Your task to perform on an android device: Add "asus rog" to the cart on amazon Image 0: 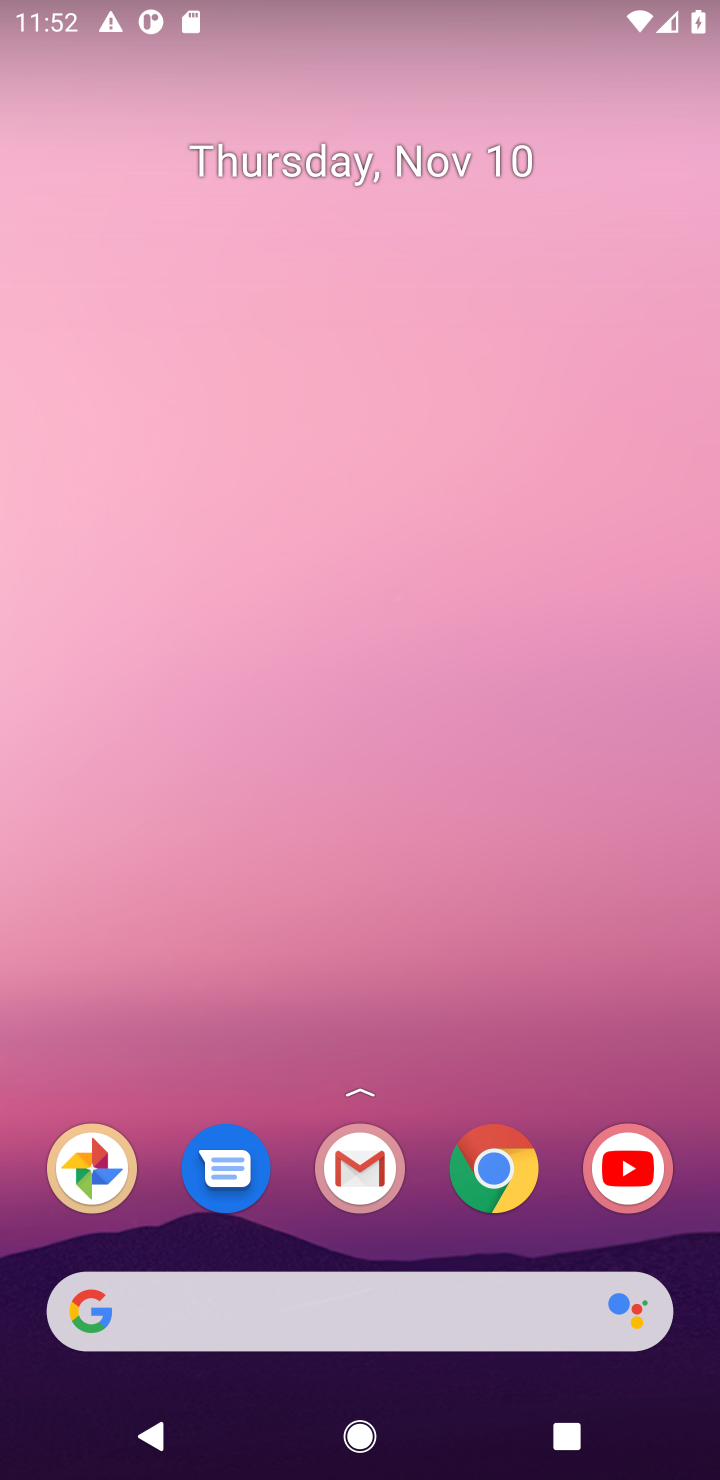
Step 0: click (489, 1165)
Your task to perform on an android device: Add "asus rog" to the cart on amazon Image 1: 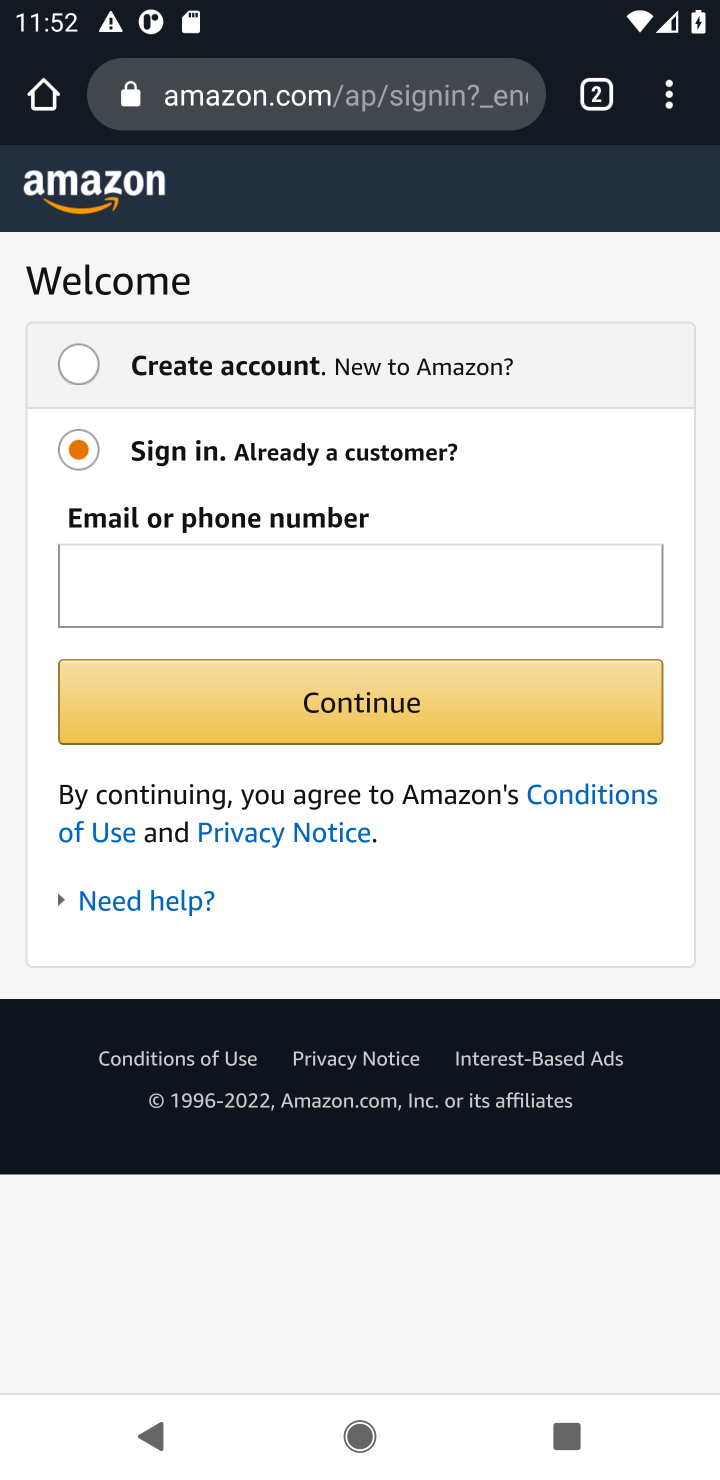
Step 1: press back button
Your task to perform on an android device: Add "asus rog" to the cart on amazon Image 2: 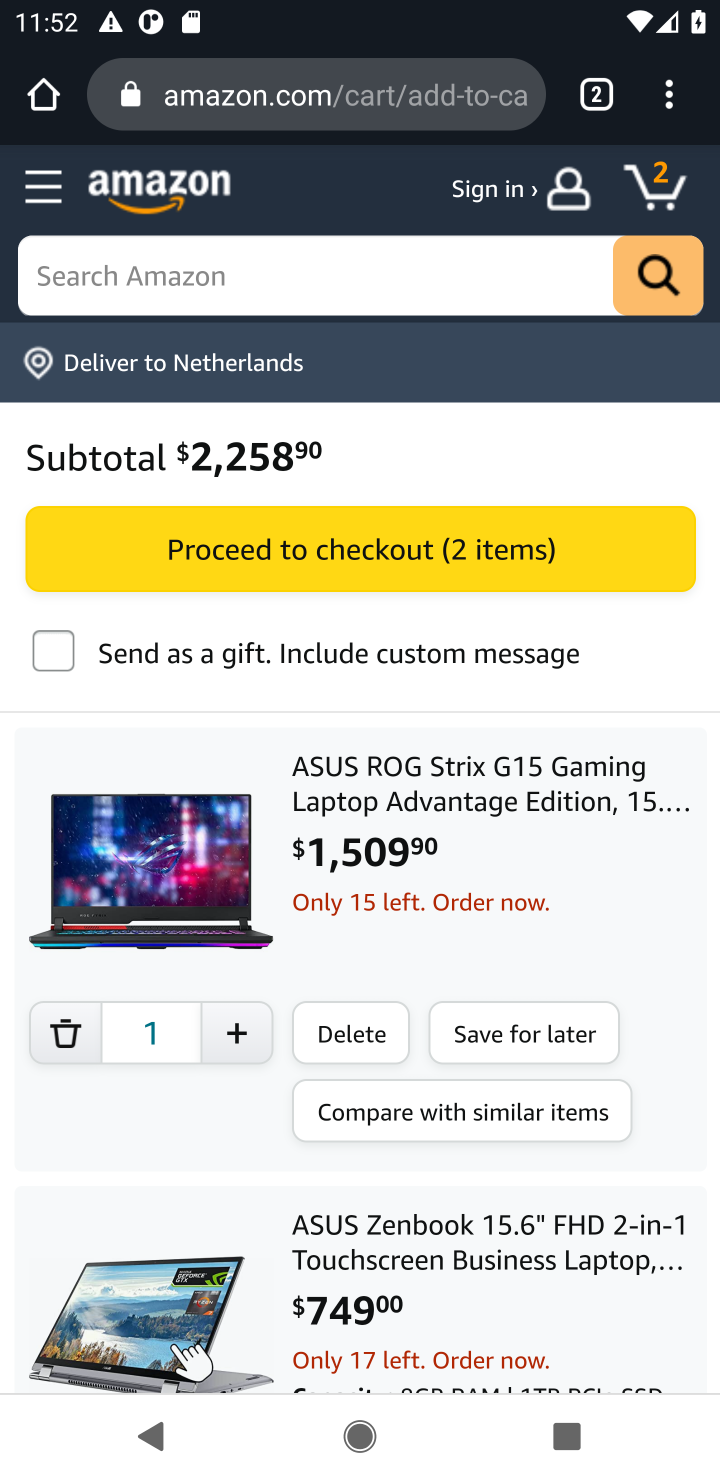
Step 2: click (298, 256)
Your task to perform on an android device: Add "asus rog" to the cart on amazon Image 3: 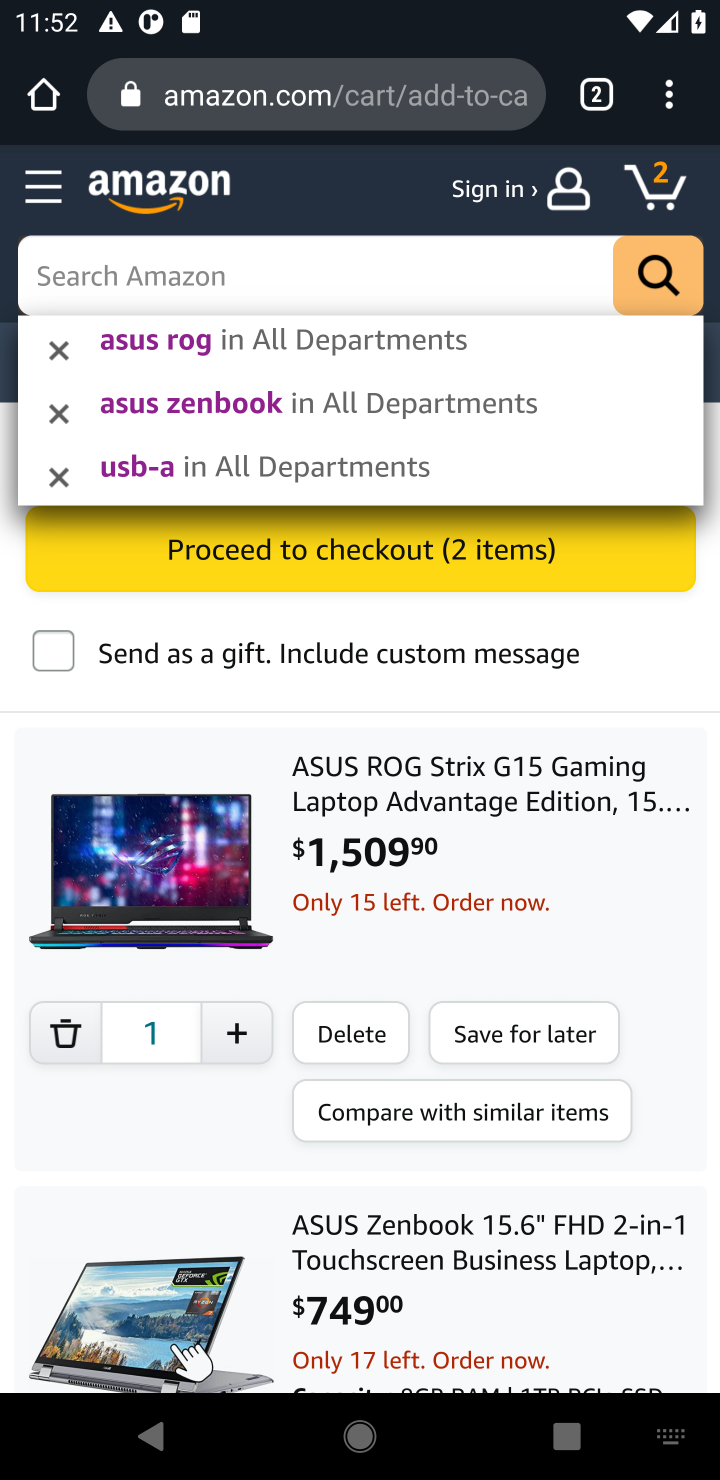
Step 3: type "asus rog"
Your task to perform on an android device: Add "asus rog" to the cart on amazon Image 4: 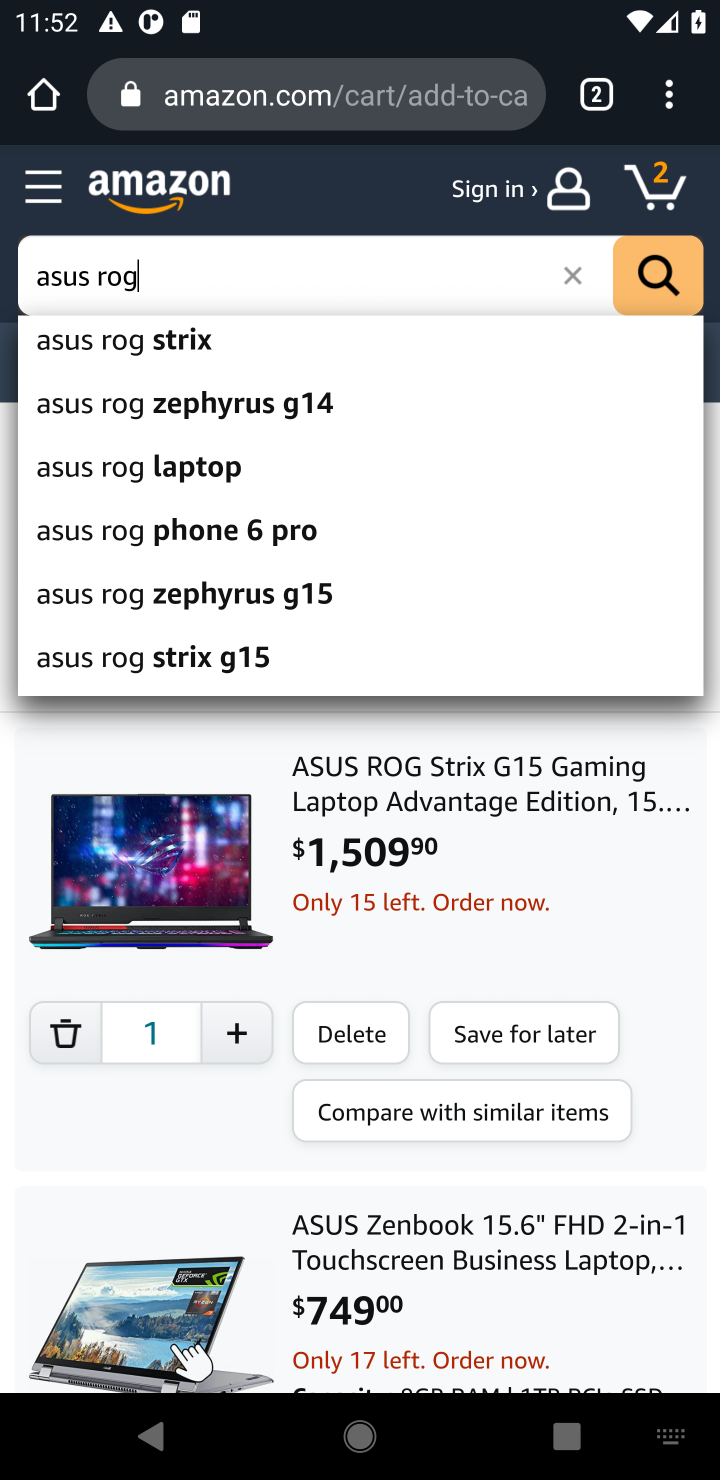
Step 4: click (651, 278)
Your task to perform on an android device: Add "asus rog" to the cart on amazon Image 5: 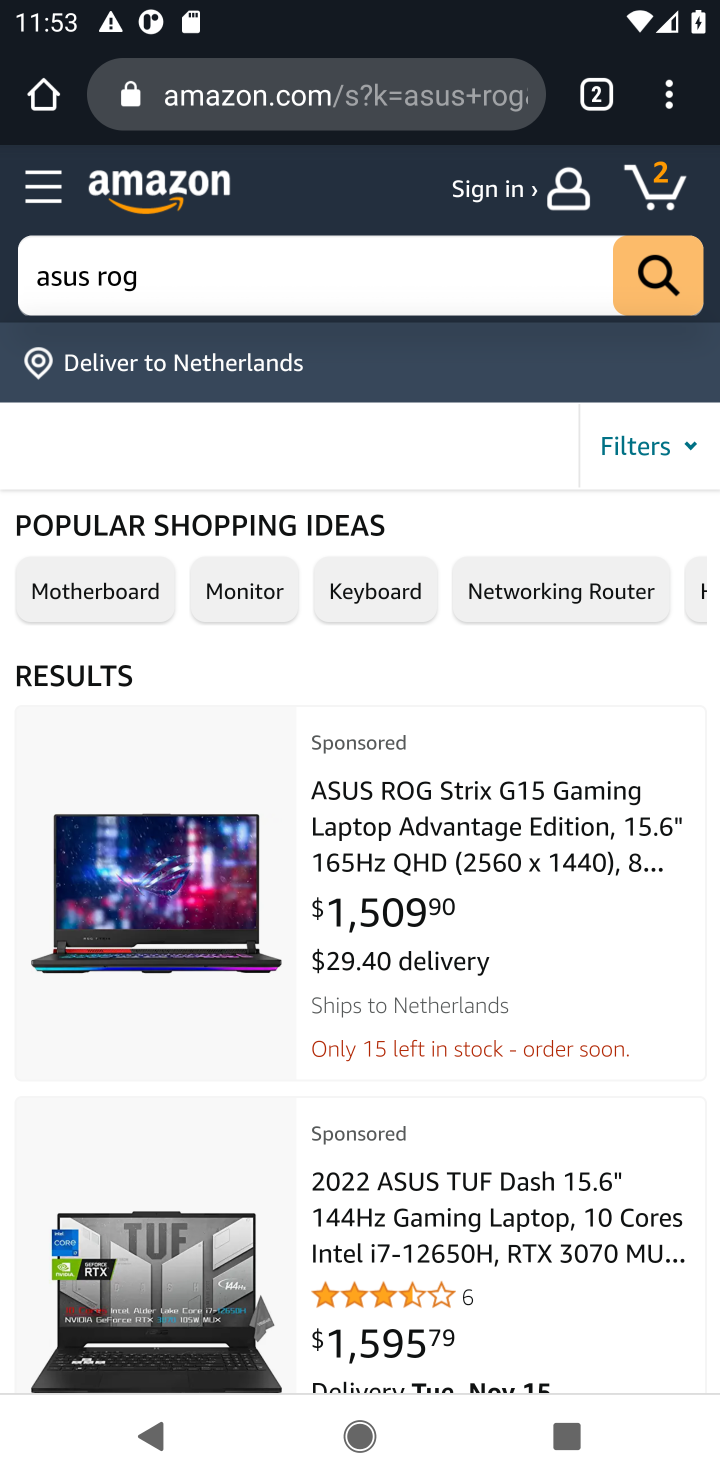
Step 5: click (387, 877)
Your task to perform on an android device: Add "asus rog" to the cart on amazon Image 6: 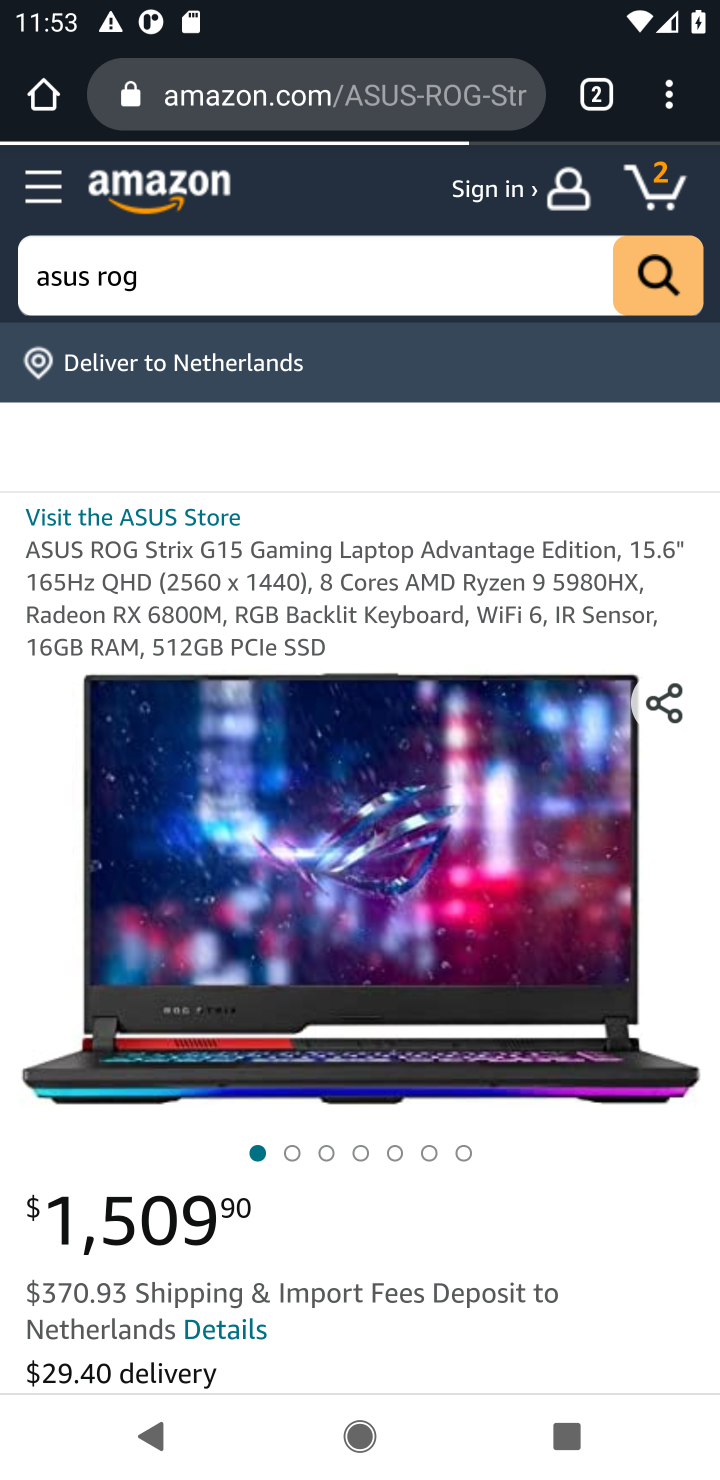
Step 6: drag from (363, 904) to (387, 348)
Your task to perform on an android device: Add "asus rog" to the cart on amazon Image 7: 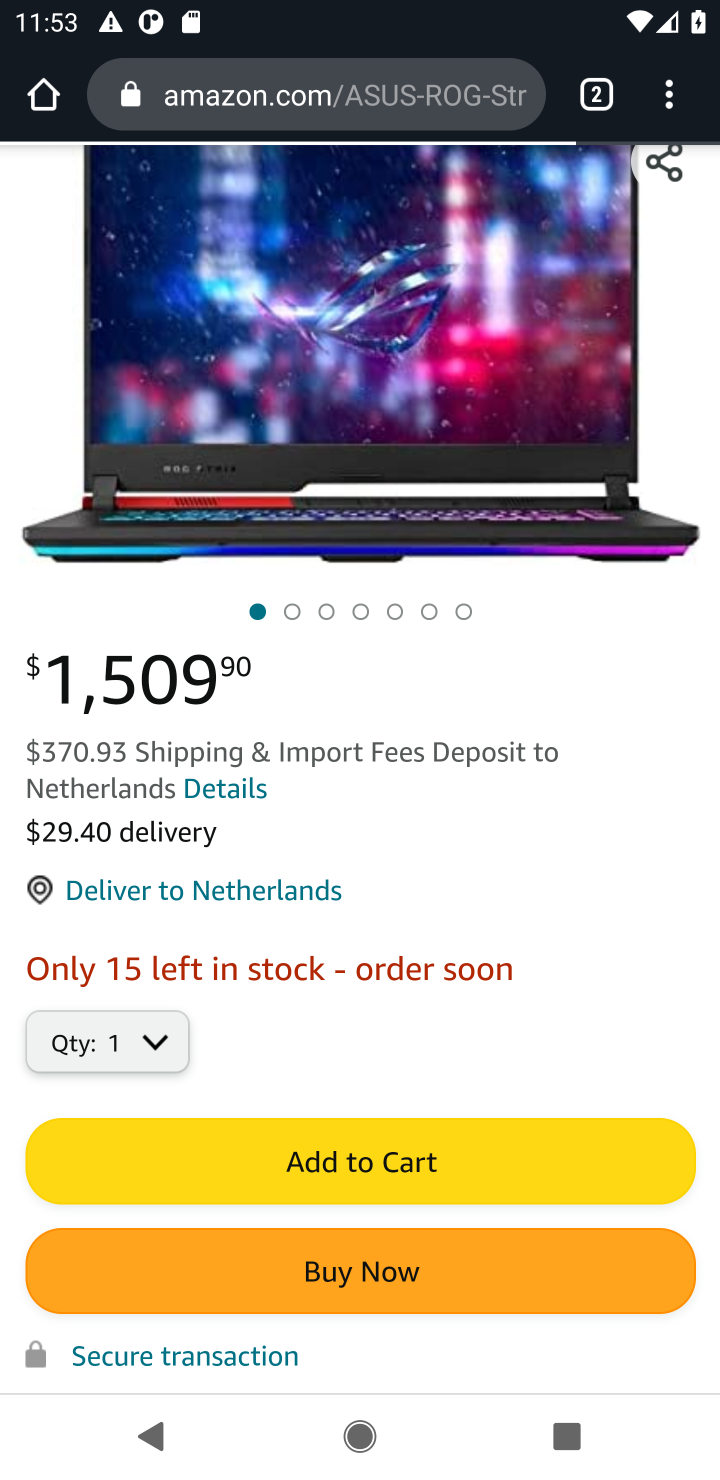
Step 7: click (323, 1173)
Your task to perform on an android device: Add "asus rog" to the cart on amazon Image 8: 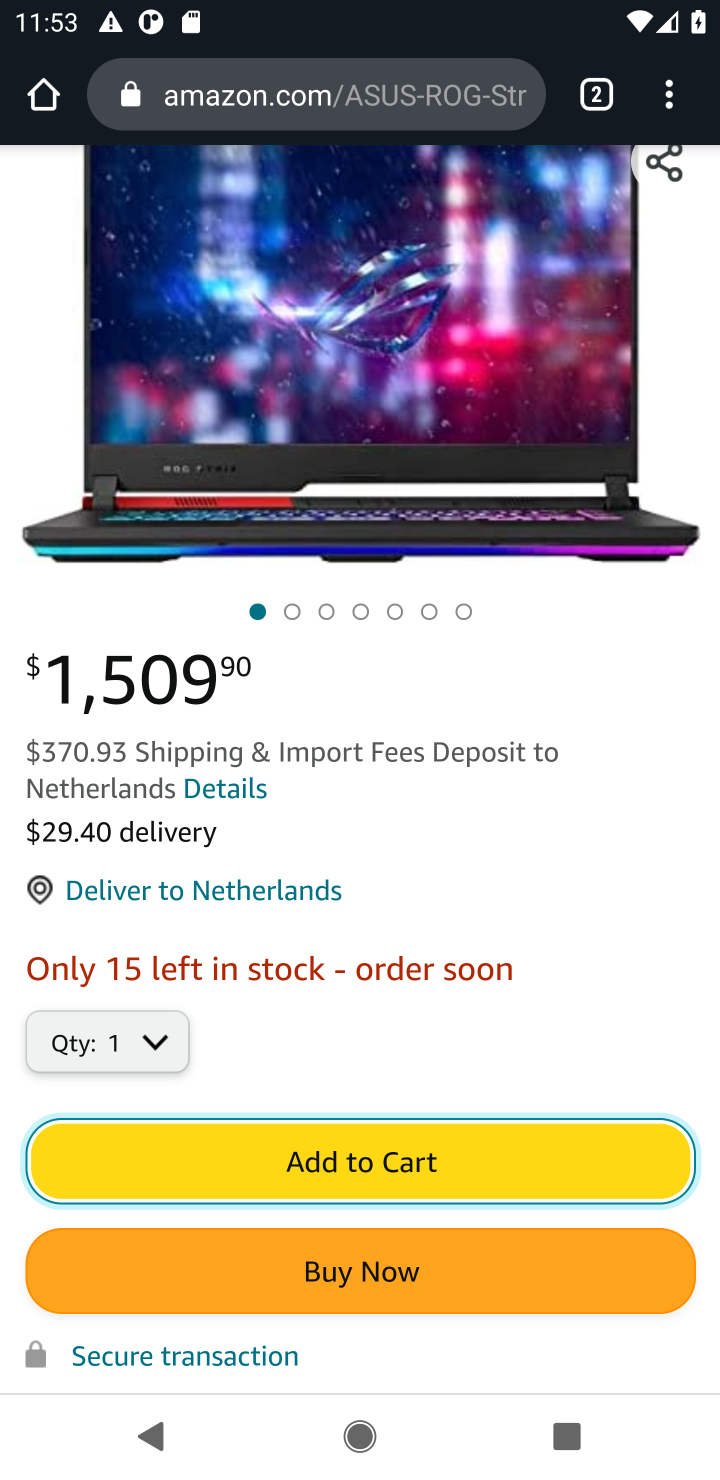
Step 8: click (323, 1173)
Your task to perform on an android device: Add "asus rog" to the cart on amazon Image 9: 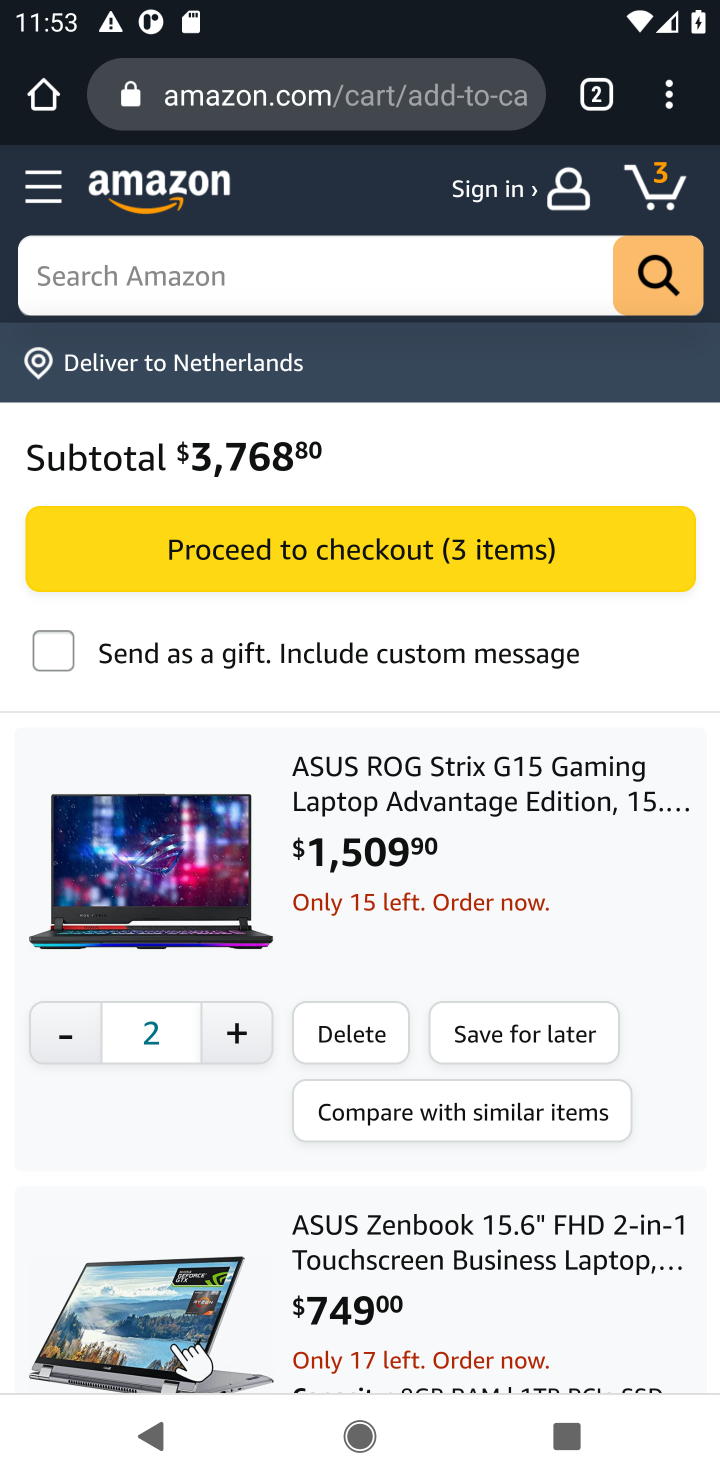
Step 9: task complete